Your task to perform on an android device: check google app version Image 0: 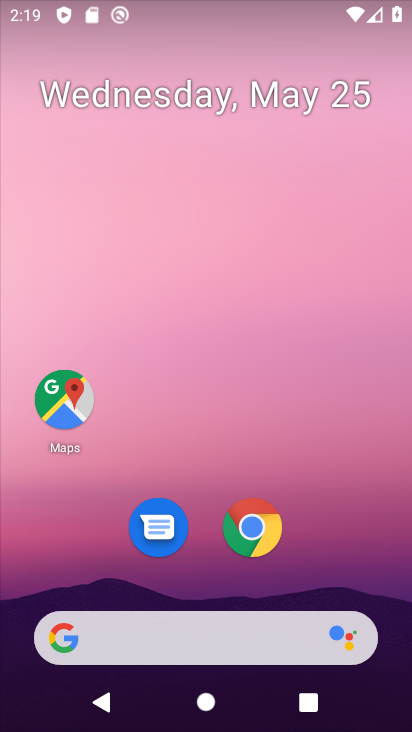
Step 0: drag from (173, 563) to (285, 93)
Your task to perform on an android device: check google app version Image 1: 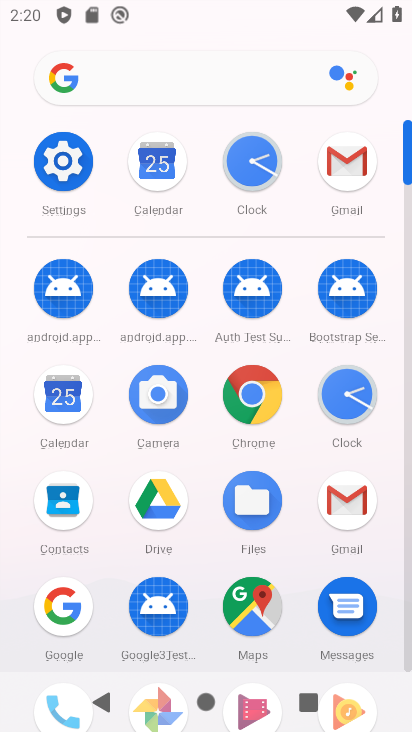
Step 1: click (45, 620)
Your task to perform on an android device: check google app version Image 2: 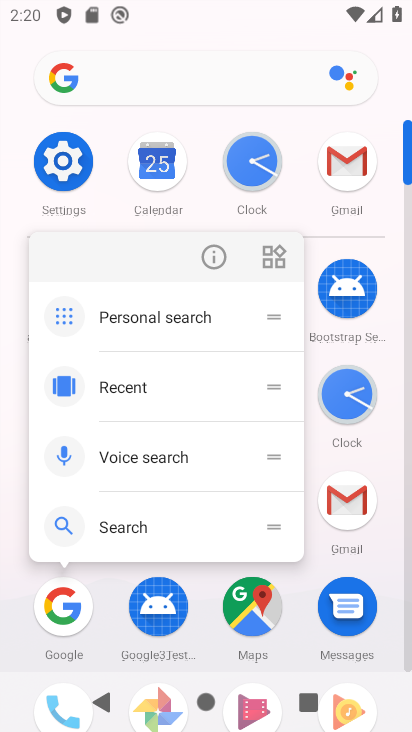
Step 2: click (208, 254)
Your task to perform on an android device: check google app version Image 3: 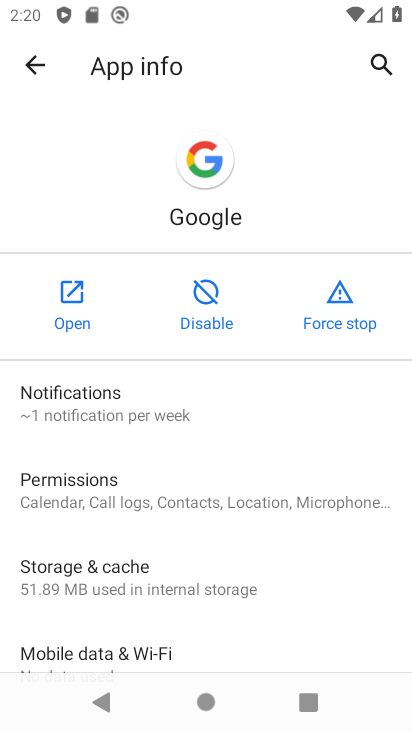
Step 3: drag from (151, 603) to (194, 320)
Your task to perform on an android device: check google app version Image 4: 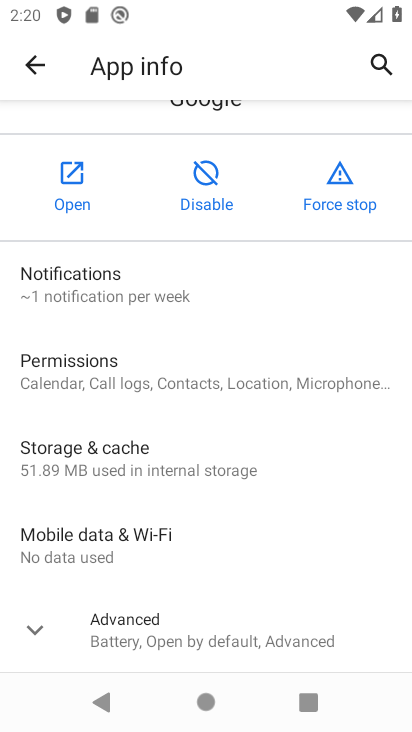
Step 4: drag from (147, 562) to (205, 84)
Your task to perform on an android device: check google app version Image 5: 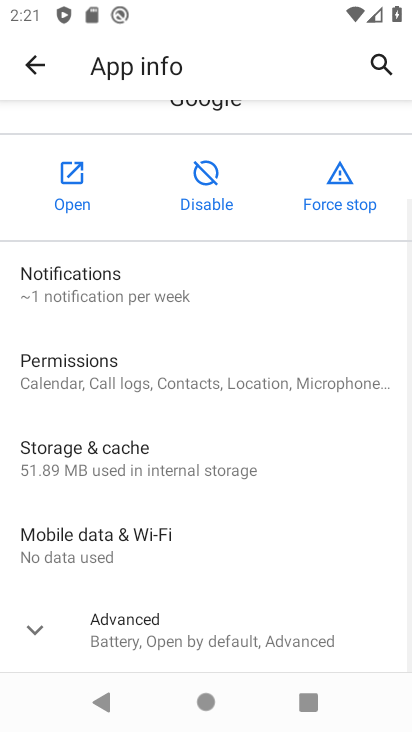
Step 5: drag from (169, 634) to (210, 93)
Your task to perform on an android device: check google app version Image 6: 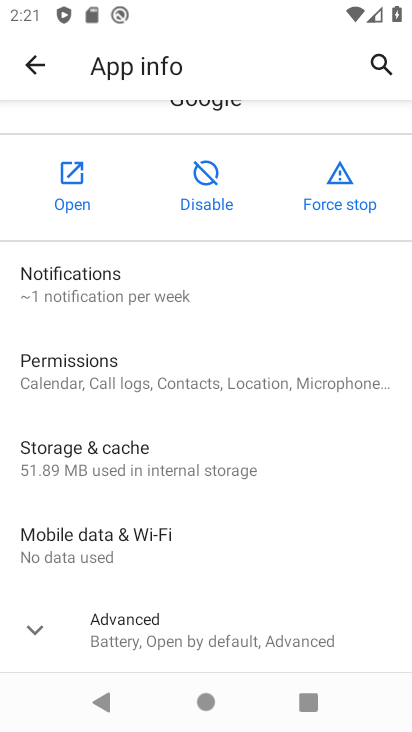
Step 6: click (138, 636)
Your task to perform on an android device: check google app version Image 7: 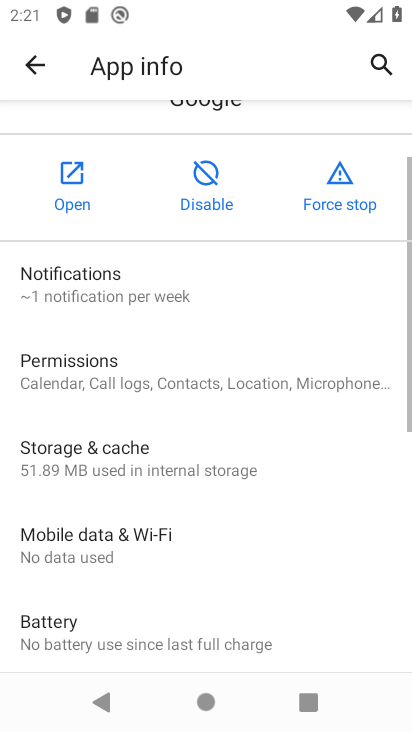
Step 7: task complete